Your task to perform on an android device: Find coffee shops on Maps Image 0: 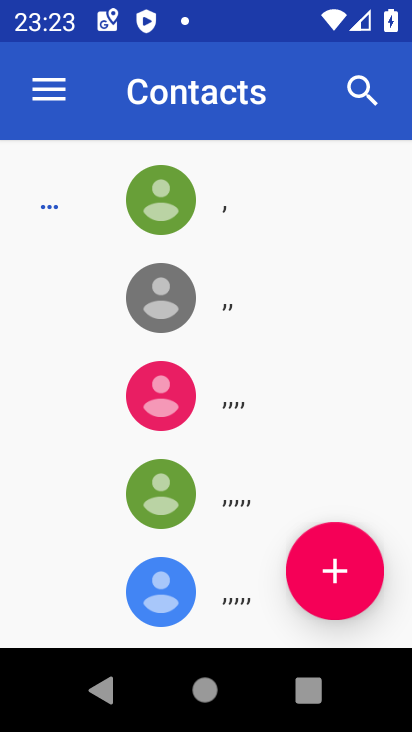
Step 0: press home button
Your task to perform on an android device: Find coffee shops on Maps Image 1: 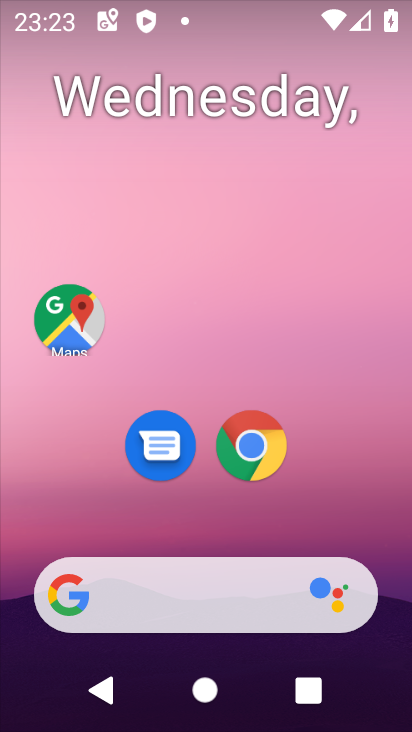
Step 1: click (56, 301)
Your task to perform on an android device: Find coffee shops on Maps Image 2: 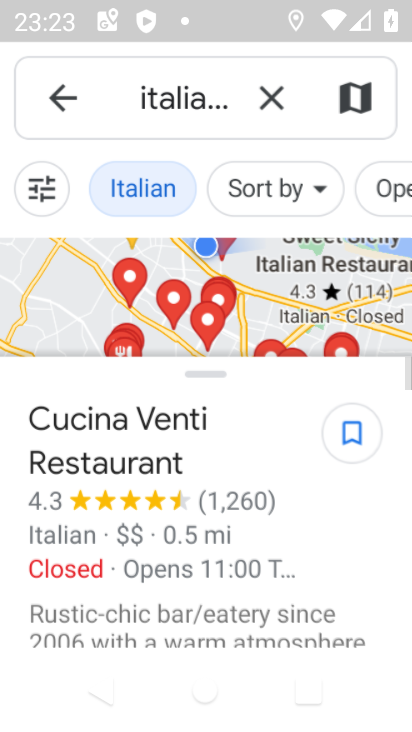
Step 2: click (267, 96)
Your task to perform on an android device: Find coffee shops on Maps Image 3: 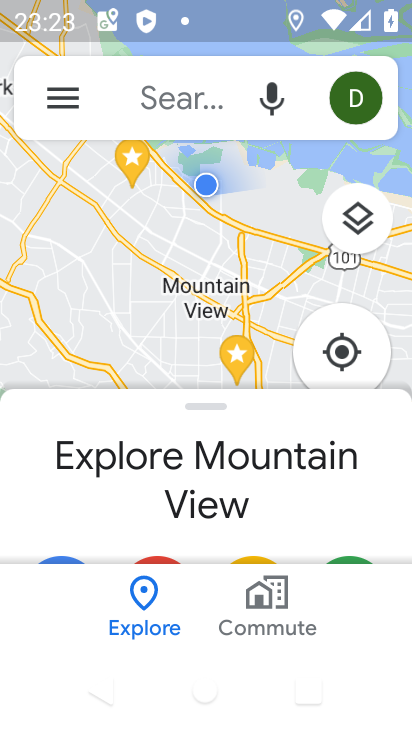
Step 3: click (165, 69)
Your task to perform on an android device: Find coffee shops on Maps Image 4: 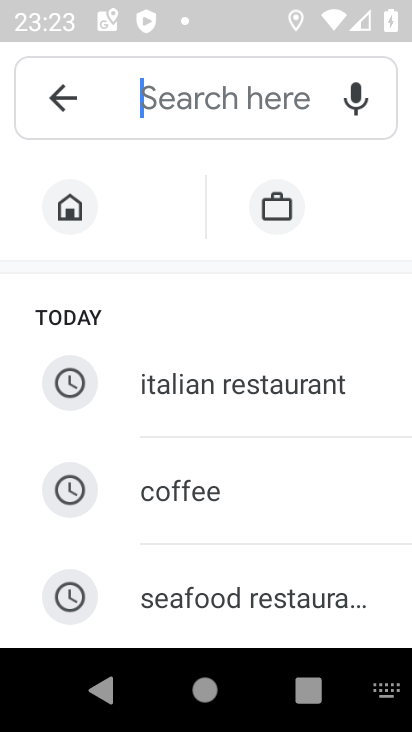
Step 4: type "coffee shops "
Your task to perform on an android device: Find coffee shops on Maps Image 5: 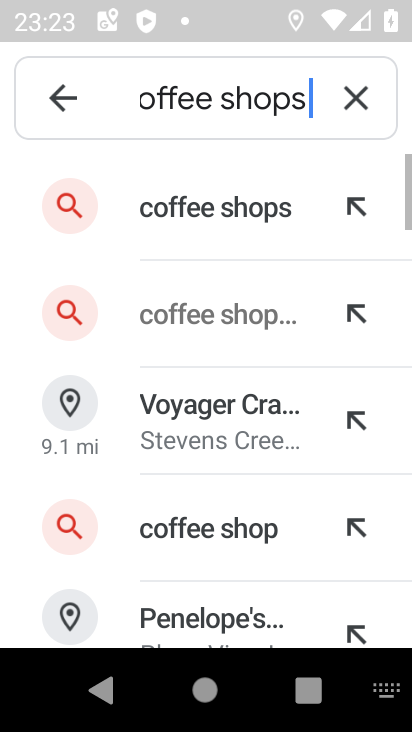
Step 5: click (219, 222)
Your task to perform on an android device: Find coffee shops on Maps Image 6: 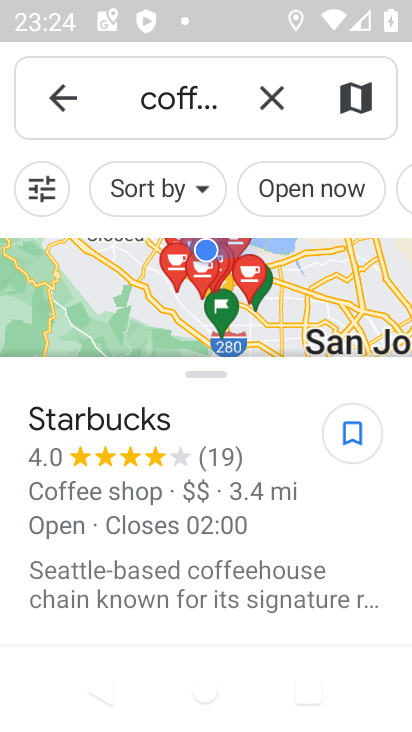
Step 6: task complete